Your task to perform on an android device: Go to display settings Image 0: 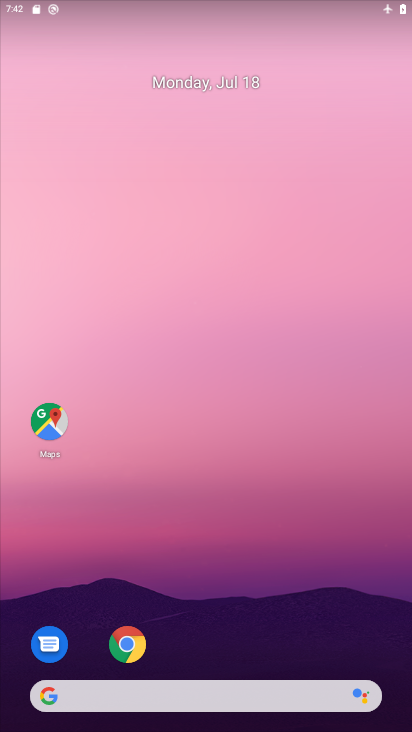
Step 0: drag from (318, 612) to (357, 16)
Your task to perform on an android device: Go to display settings Image 1: 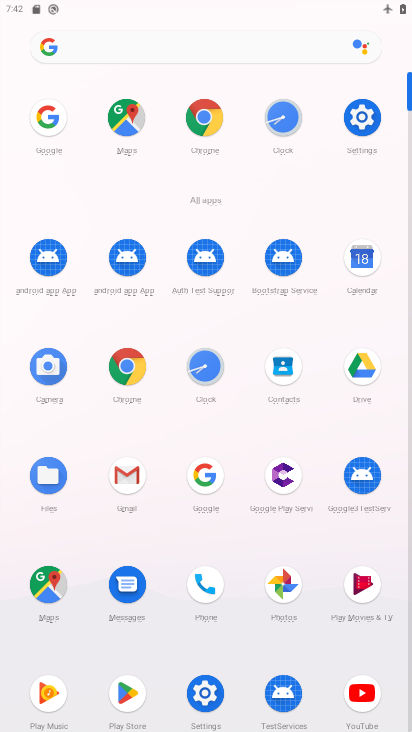
Step 1: click (364, 123)
Your task to perform on an android device: Go to display settings Image 2: 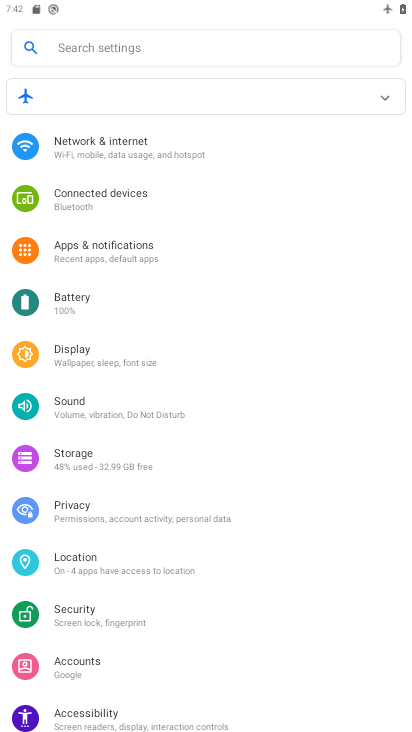
Step 2: drag from (284, 495) to (296, 370)
Your task to perform on an android device: Go to display settings Image 3: 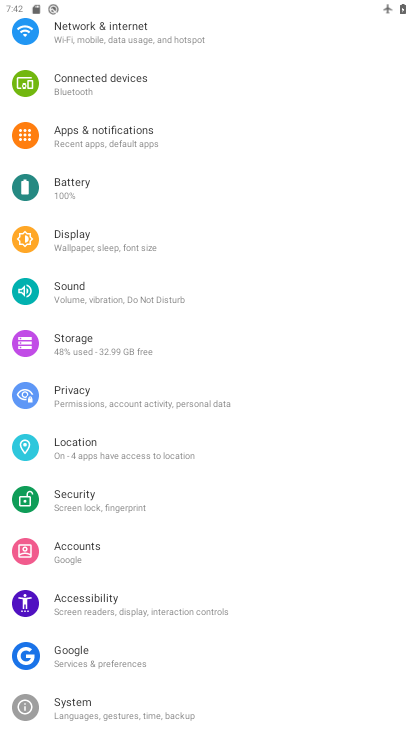
Step 3: drag from (288, 466) to (292, 371)
Your task to perform on an android device: Go to display settings Image 4: 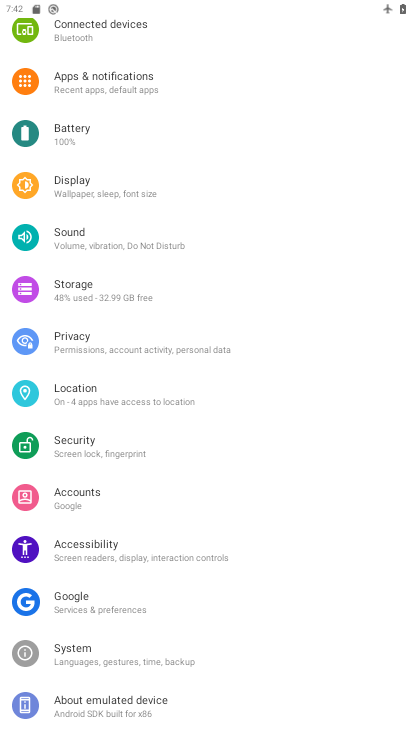
Step 4: drag from (283, 472) to (289, 351)
Your task to perform on an android device: Go to display settings Image 5: 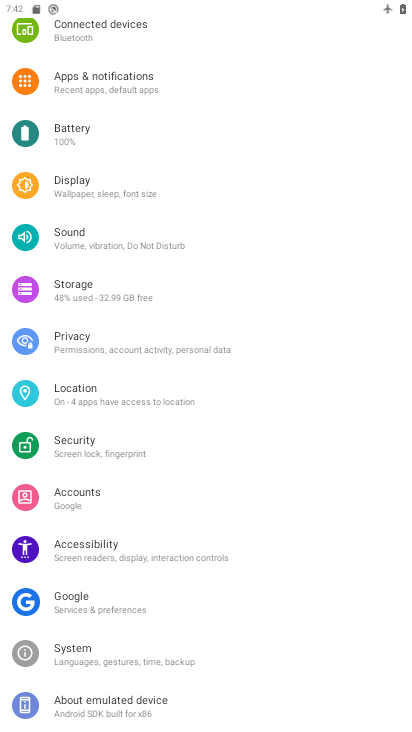
Step 5: click (186, 197)
Your task to perform on an android device: Go to display settings Image 6: 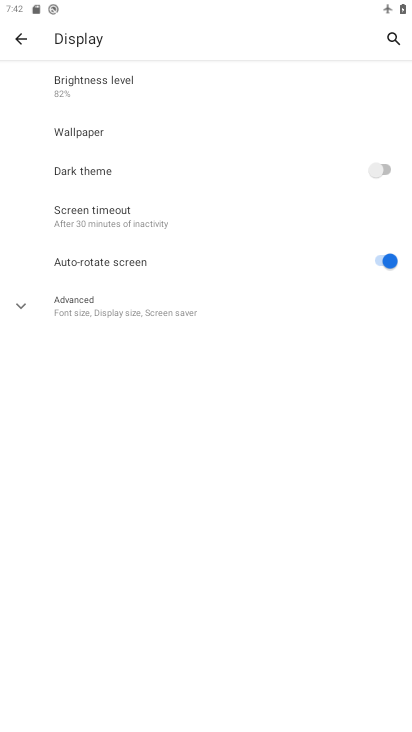
Step 6: click (196, 316)
Your task to perform on an android device: Go to display settings Image 7: 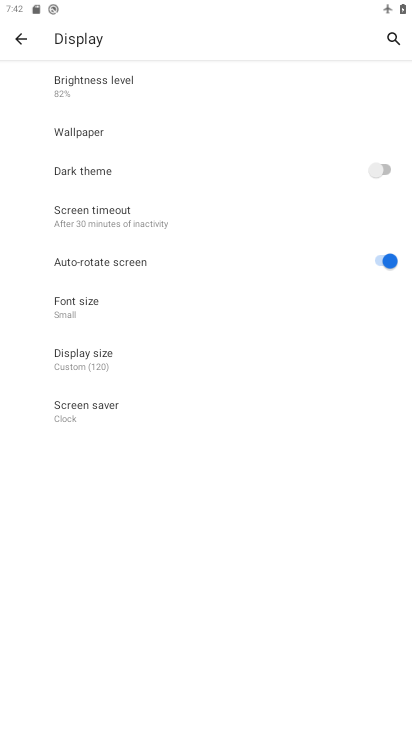
Step 7: task complete